Your task to perform on an android device: What's on my calendar tomorrow? Image 0: 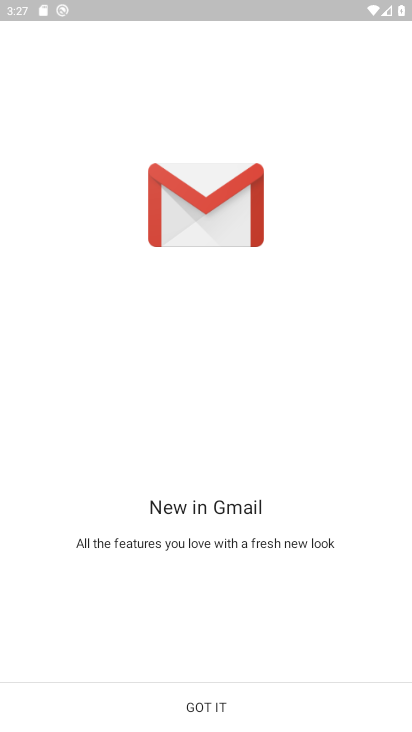
Step 0: click (167, 710)
Your task to perform on an android device: What's on my calendar tomorrow? Image 1: 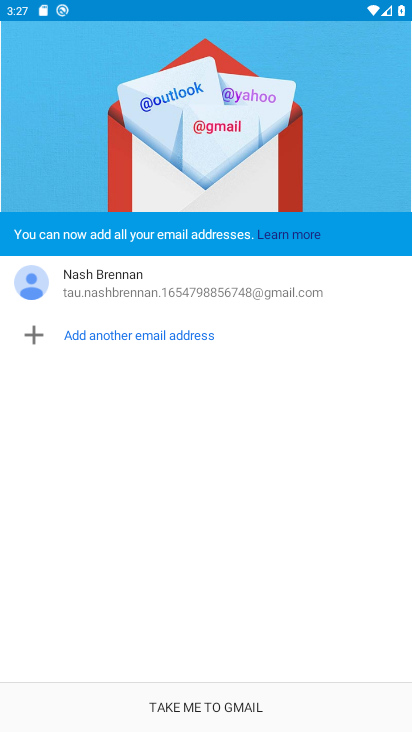
Step 1: press home button
Your task to perform on an android device: What's on my calendar tomorrow? Image 2: 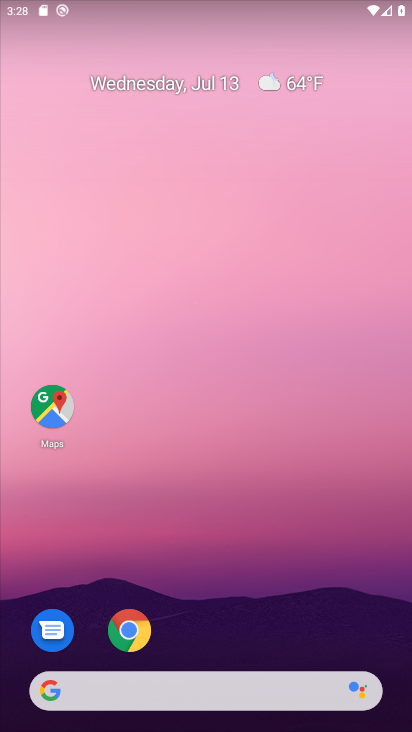
Step 2: click (135, 84)
Your task to perform on an android device: What's on my calendar tomorrow? Image 3: 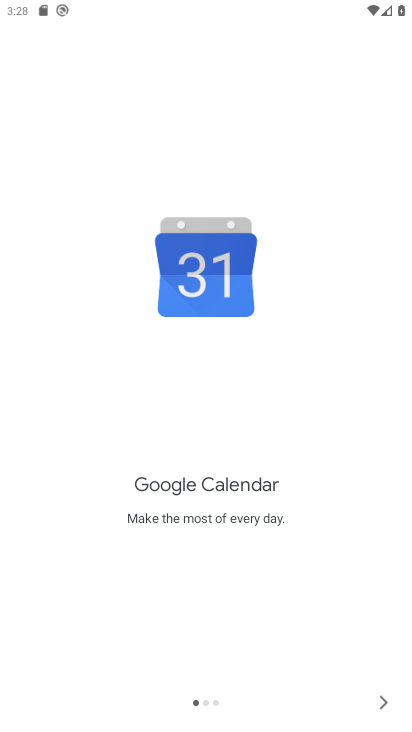
Step 3: click (377, 715)
Your task to perform on an android device: What's on my calendar tomorrow? Image 4: 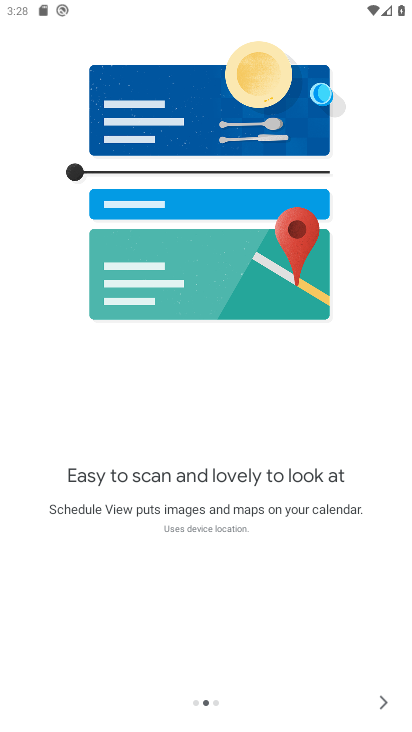
Step 4: click (377, 715)
Your task to perform on an android device: What's on my calendar tomorrow? Image 5: 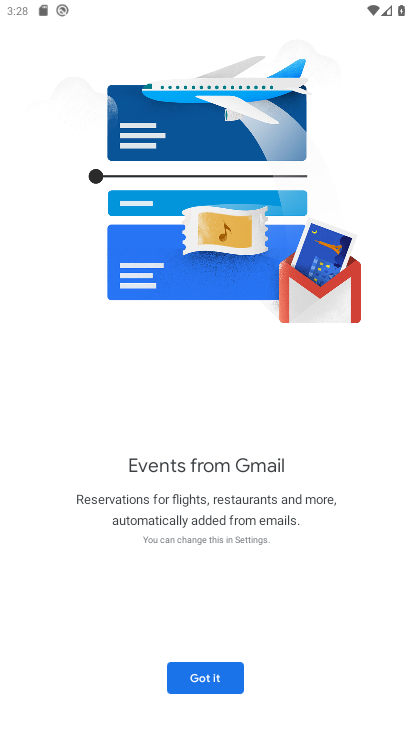
Step 5: click (198, 683)
Your task to perform on an android device: What's on my calendar tomorrow? Image 6: 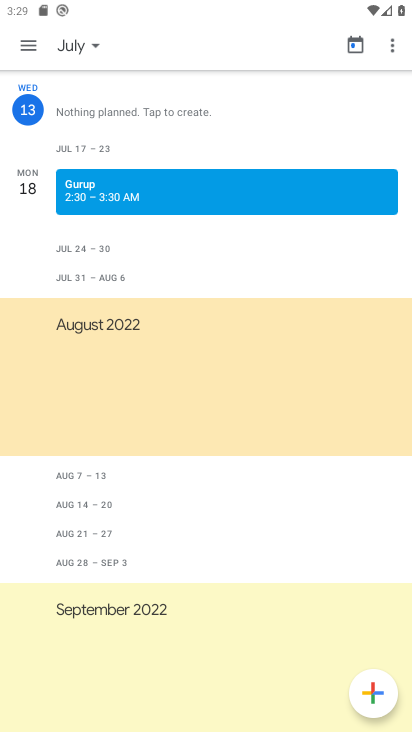
Step 6: click (66, 43)
Your task to perform on an android device: What's on my calendar tomorrow? Image 7: 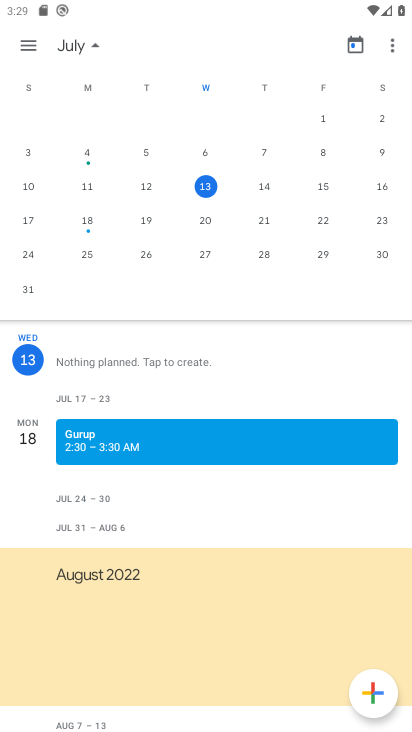
Step 7: click (265, 188)
Your task to perform on an android device: What's on my calendar tomorrow? Image 8: 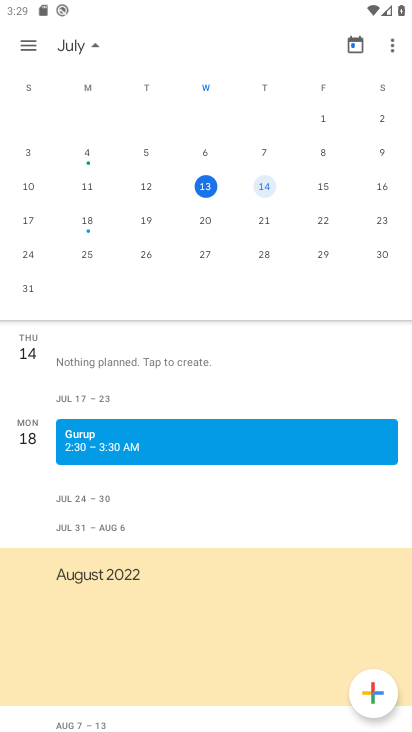
Step 8: task complete